Your task to perform on an android device: Set the phone to "Do not disturb". Image 0: 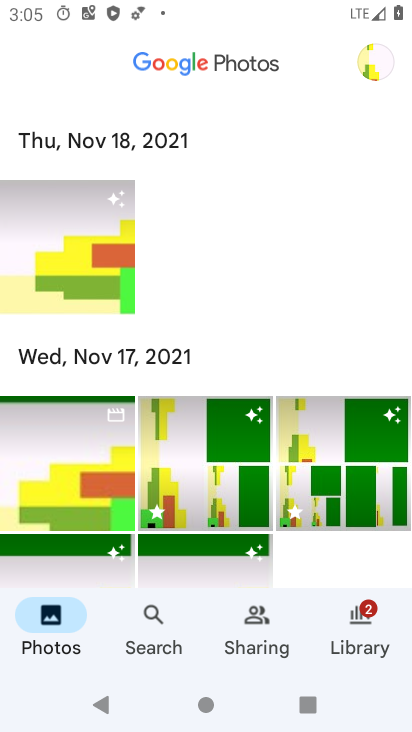
Step 0: drag from (297, 7) to (253, 302)
Your task to perform on an android device: Set the phone to "Do not disturb". Image 1: 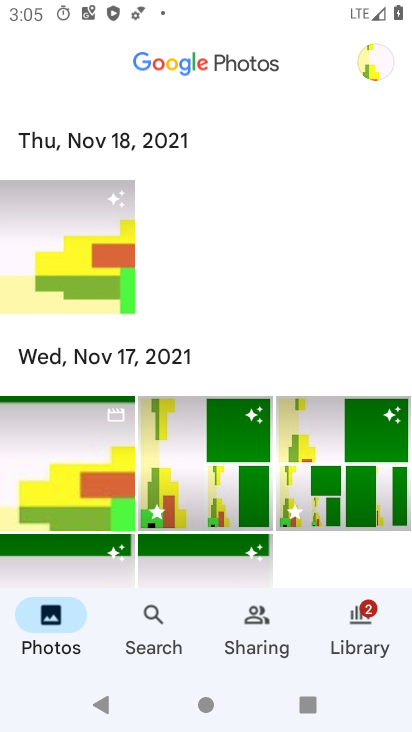
Step 1: drag from (206, 8) to (149, 544)
Your task to perform on an android device: Set the phone to "Do not disturb". Image 2: 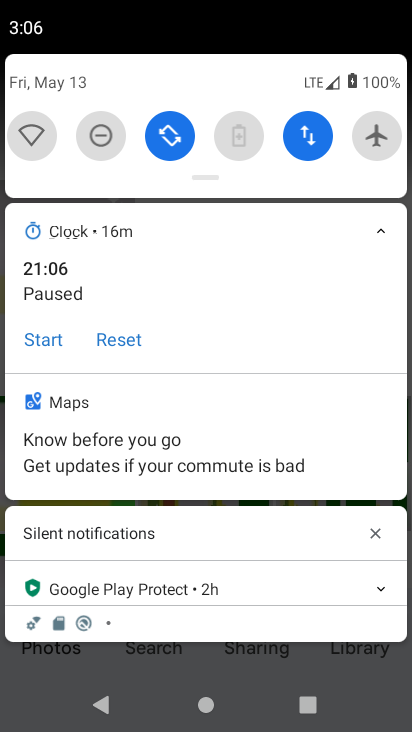
Step 2: click (114, 154)
Your task to perform on an android device: Set the phone to "Do not disturb". Image 3: 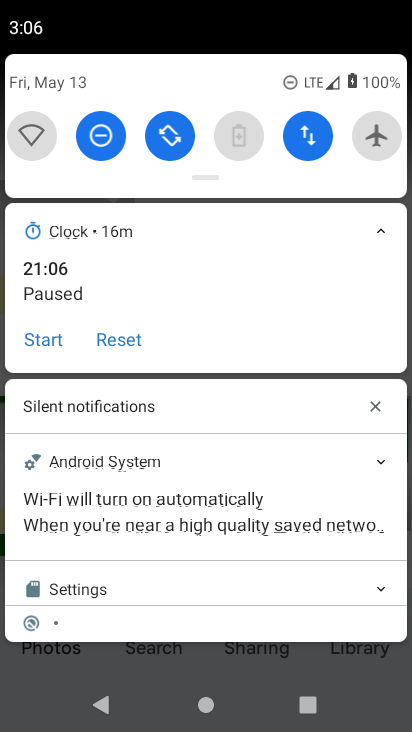
Step 3: task complete